Your task to perform on an android device: turn on location history Image 0: 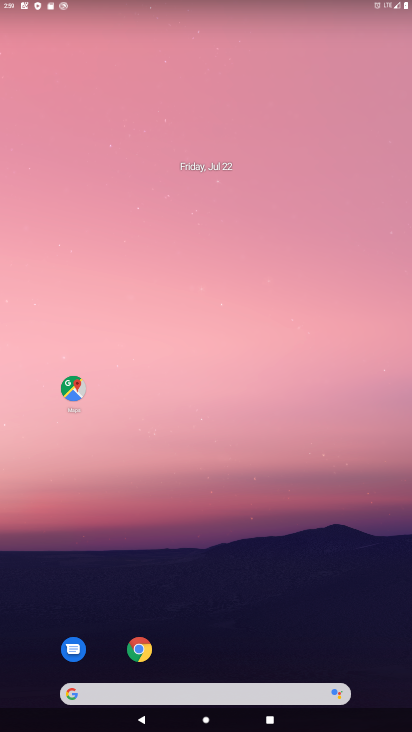
Step 0: drag from (199, 656) to (290, 278)
Your task to perform on an android device: turn on location history Image 1: 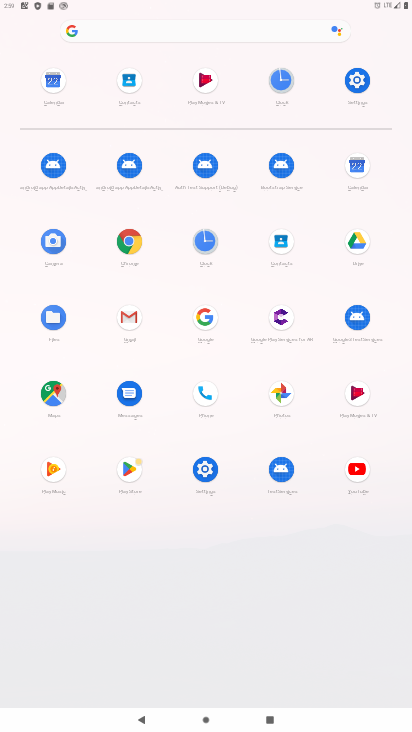
Step 1: click (201, 471)
Your task to perform on an android device: turn on location history Image 2: 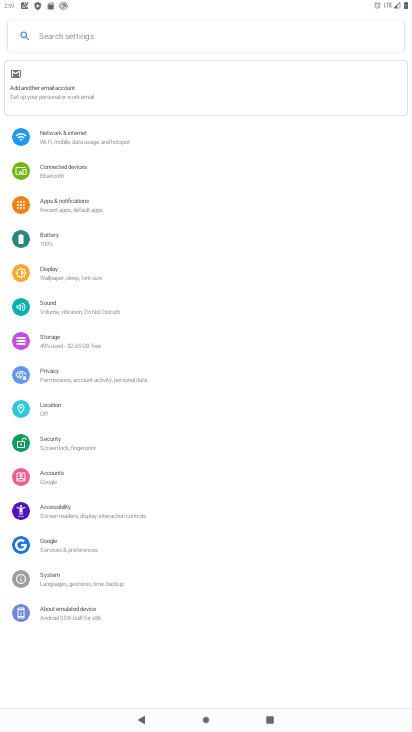
Step 2: press home button
Your task to perform on an android device: turn on location history Image 3: 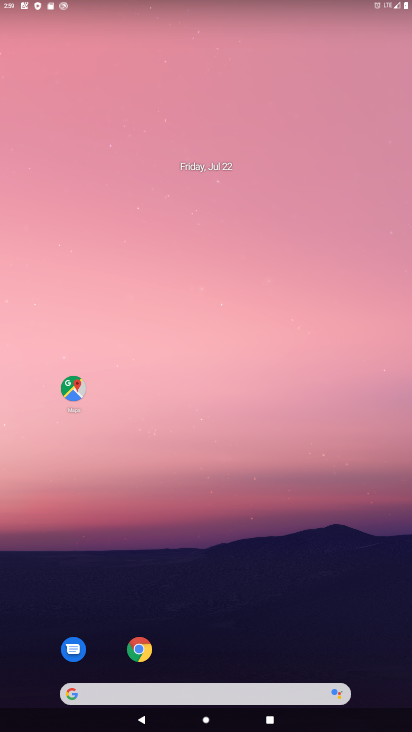
Step 3: drag from (182, 623) to (240, 145)
Your task to perform on an android device: turn on location history Image 4: 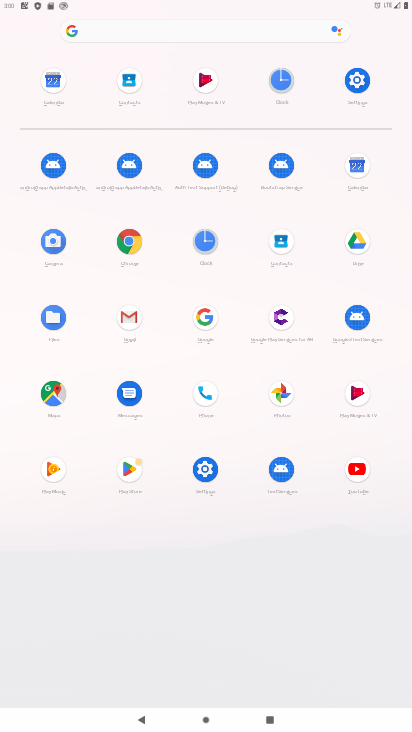
Step 4: click (353, 85)
Your task to perform on an android device: turn on location history Image 5: 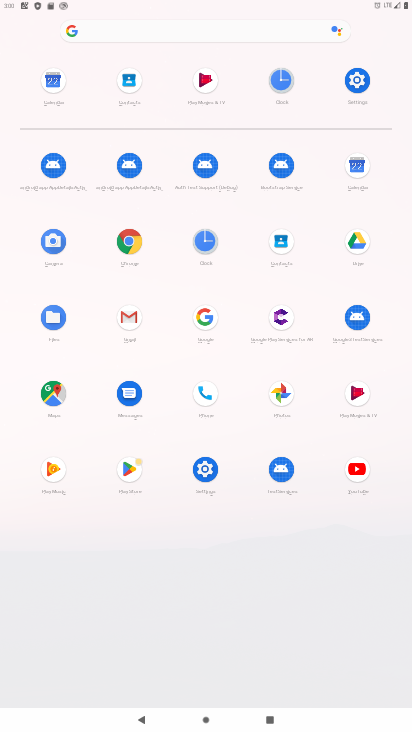
Step 5: click (353, 88)
Your task to perform on an android device: turn on location history Image 6: 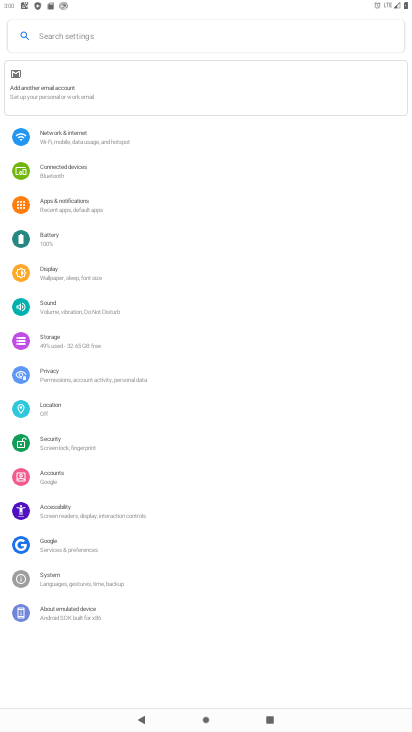
Step 6: drag from (111, 203) to (125, 701)
Your task to perform on an android device: turn on location history Image 7: 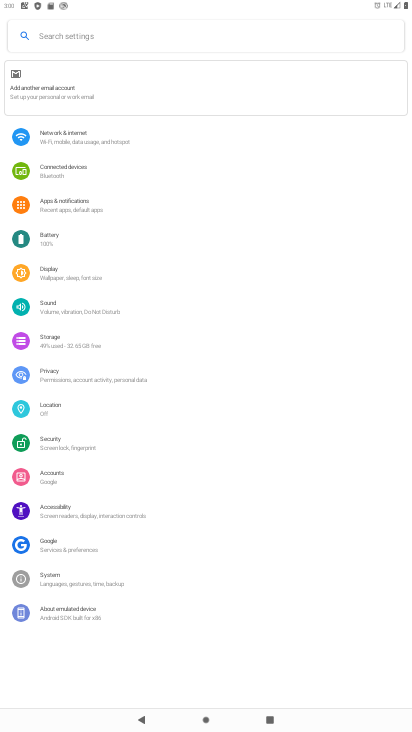
Step 7: click (80, 415)
Your task to perform on an android device: turn on location history Image 8: 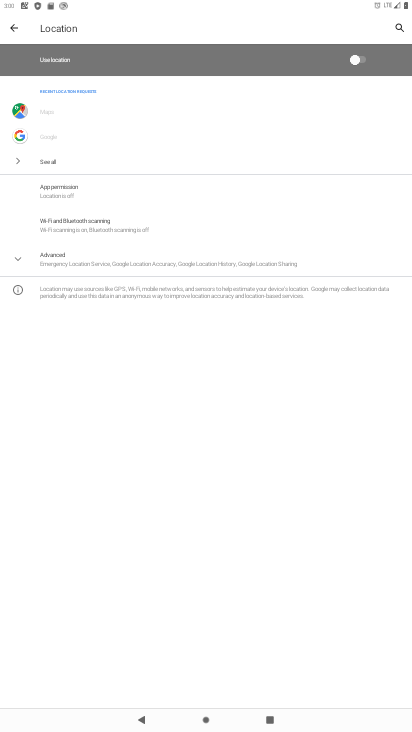
Step 8: drag from (228, 567) to (232, 362)
Your task to perform on an android device: turn on location history Image 9: 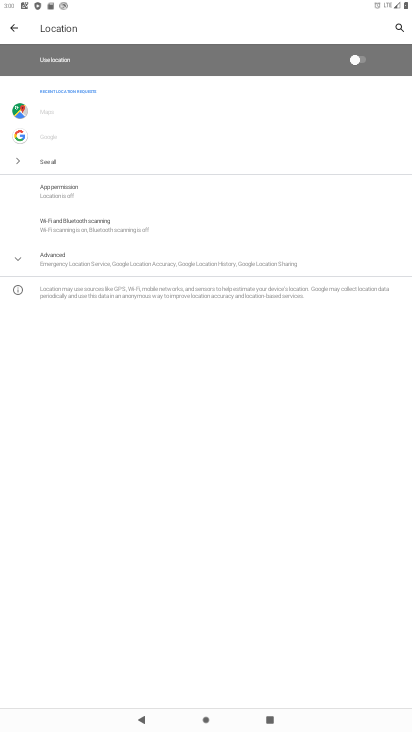
Step 9: drag from (212, 526) to (224, 368)
Your task to perform on an android device: turn on location history Image 10: 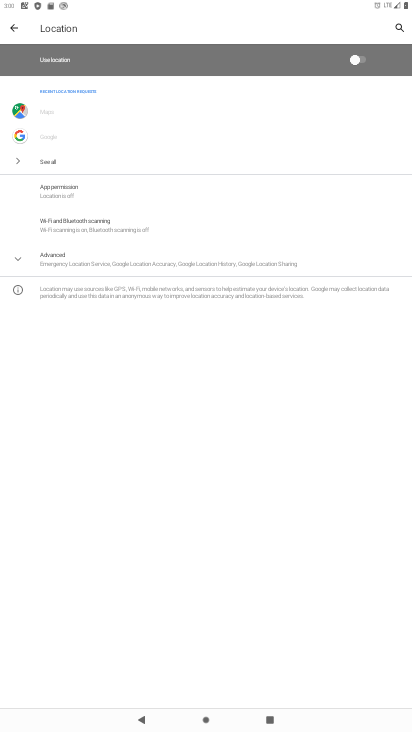
Step 10: click (85, 267)
Your task to perform on an android device: turn on location history Image 11: 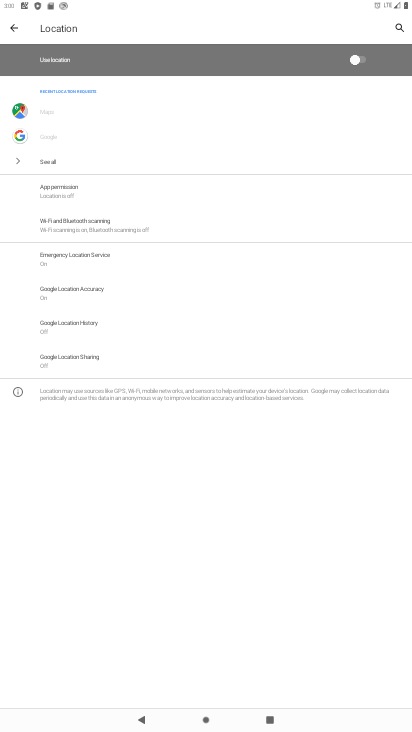
Step 11: click (89, 326)
Your task to perform on an android device: turn on location history Image 12: 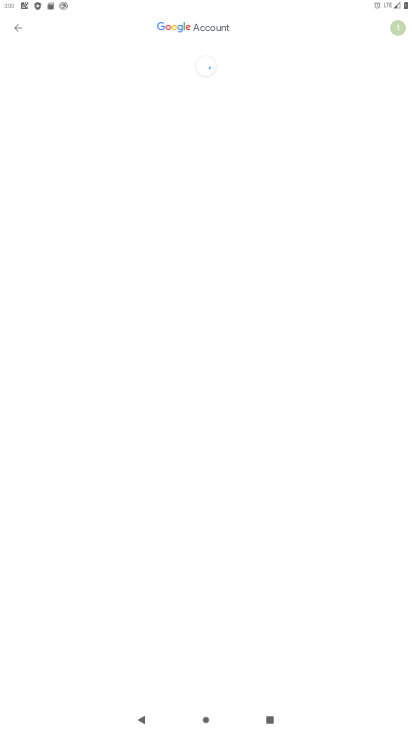
Step 12: drag from (278, 512) to (277, 136)
Your task to perform on an android device: turn on location history Image 13: 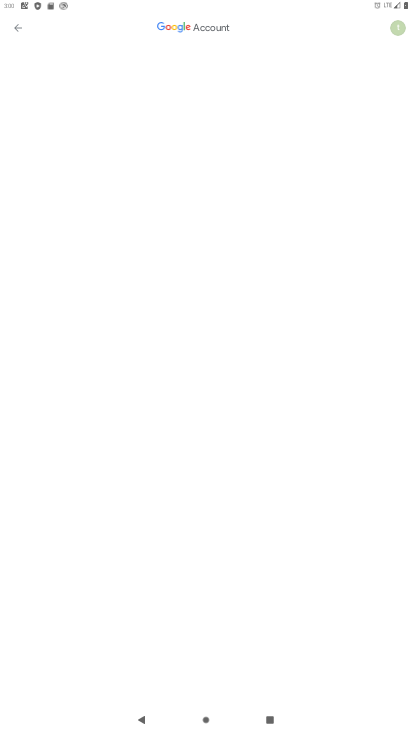
Step 13: drag from (221, 503) to (222, 271)
Your task to perform on an android device: turn on location history Image 14: 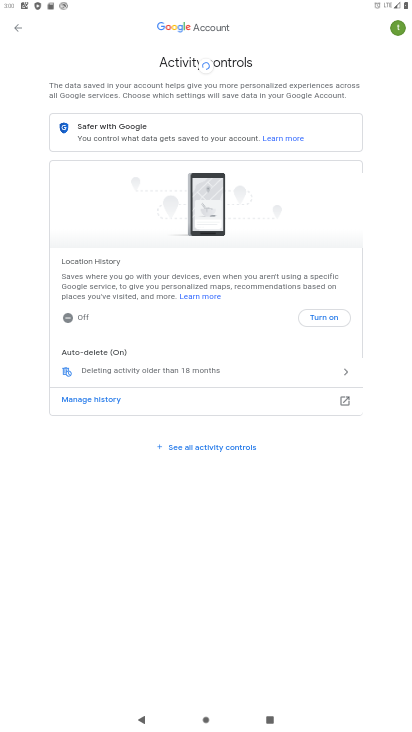
Step 14: click (318, 317)
Your task to perform on an android device: turn on location history Image 15: 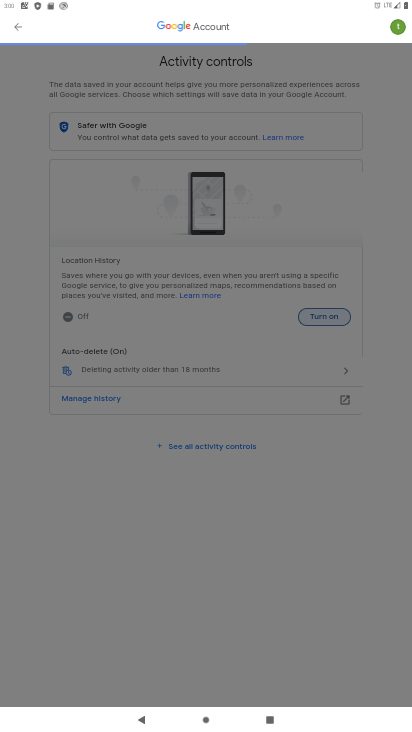
Step 15: drag from (255, 581) to (272, 311)
Your task to perform on an android device: turn on location history Image 16: 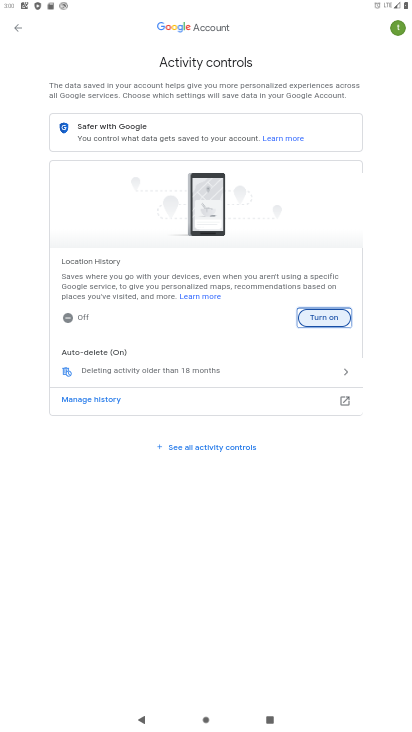
Step 16: drag from (259, 478) to (279, 207)
Your task to perform on an android device: turn on location history Image 17: 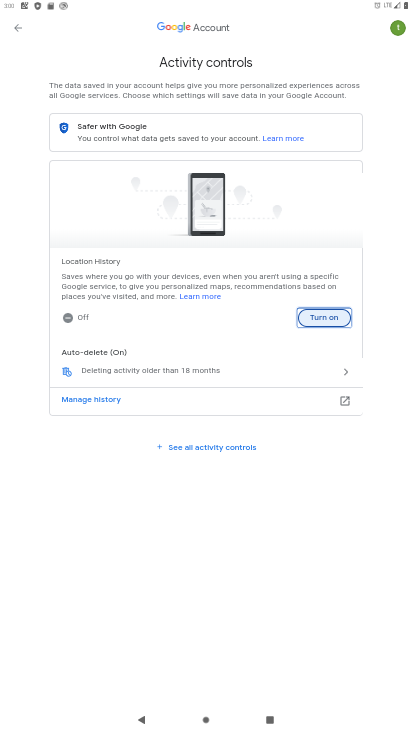
Step 17: click (340, 321)
Your task to perform on an android device: turn on location history Image 18: 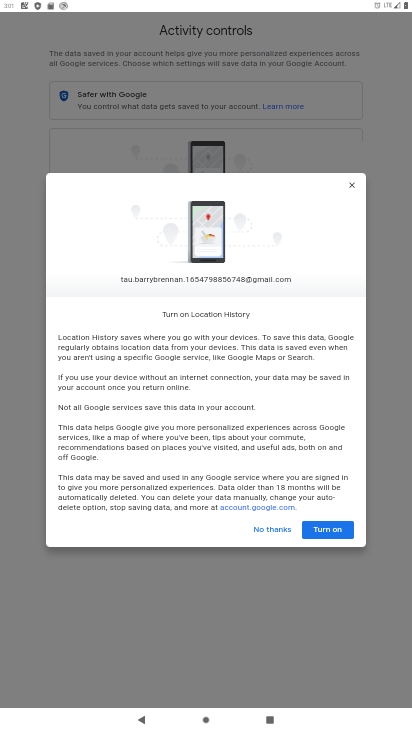
Step 18: click (322, 534)
Your task to perform on an android device: turn on location history Image 19: 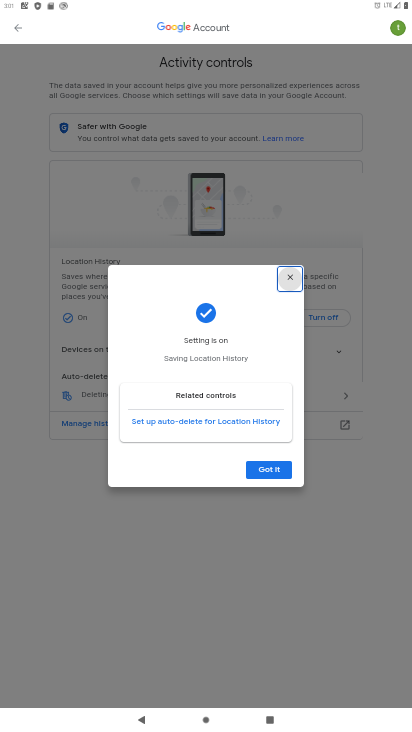
Step 19: task complete